Your task to perform on an android device: Go to settings Image 0: 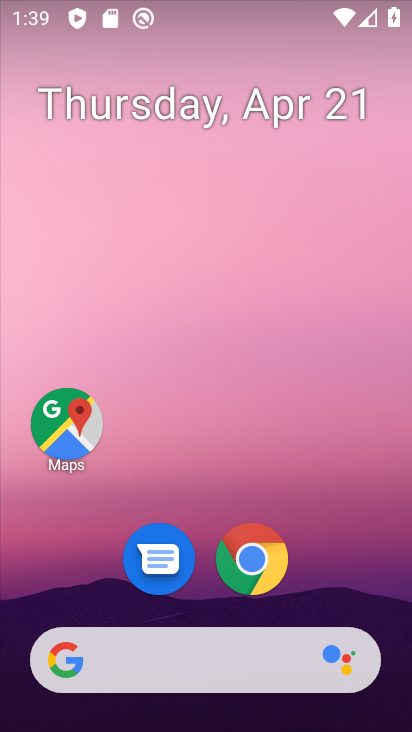
Step 0: click (274, 103)
Your task to perform on an android device: Go to settings Image 1: 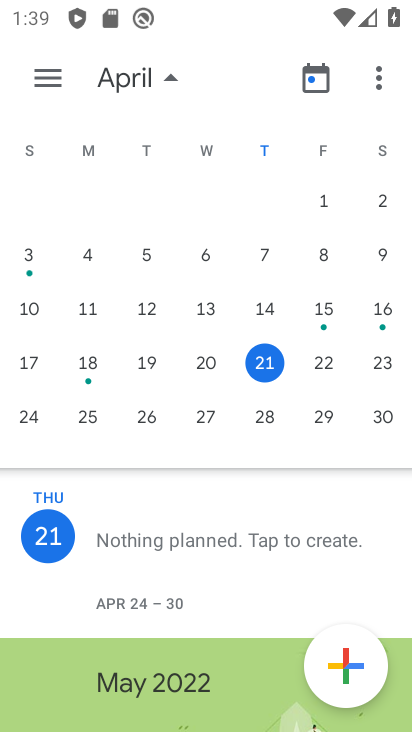
Step 1: press back button
Your task to perform on an android device: Go to settings Image 2: 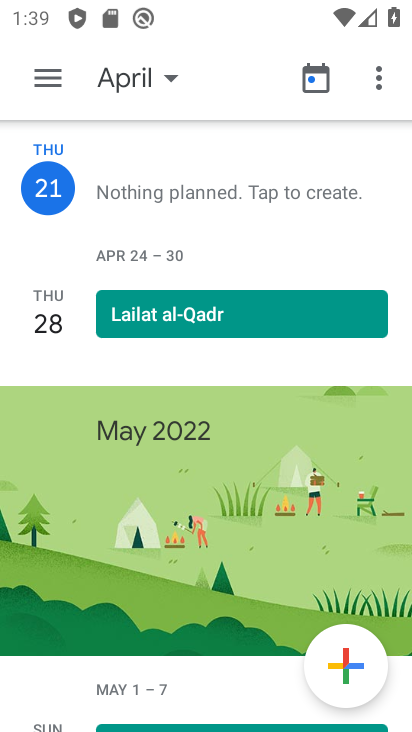
Step 2: press back button
Your task to perform on an android device: Go to settings Image 3: 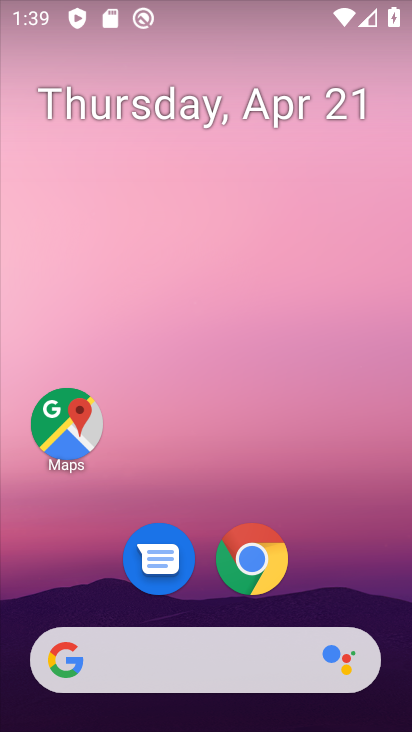
Step 3: drag from (234, 483) to (354, 28)
Your task to perform on an android device: Go to settings Image 4: 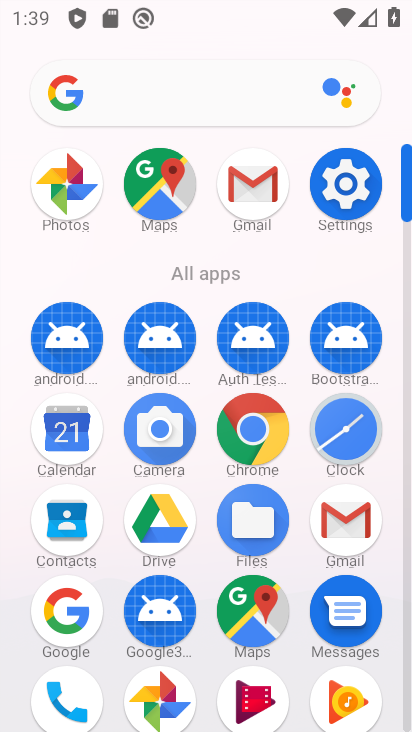
Step 4: click (362, 187)
Your task to perform on an android device: Go to settings Image 5: 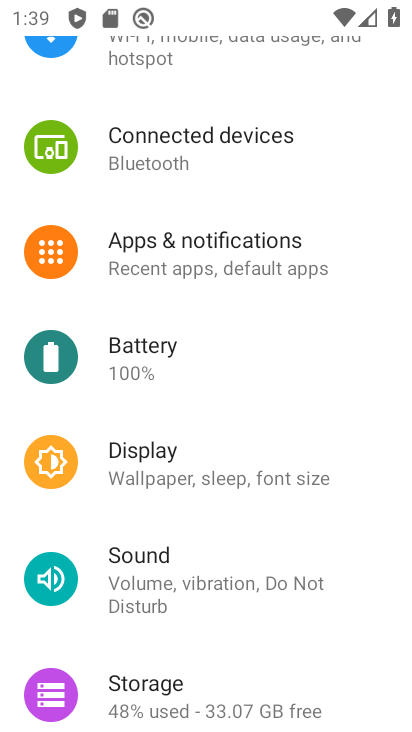
Step 5: task complete